Your task to perform on an android device: Turn off the flashlight Image 0: 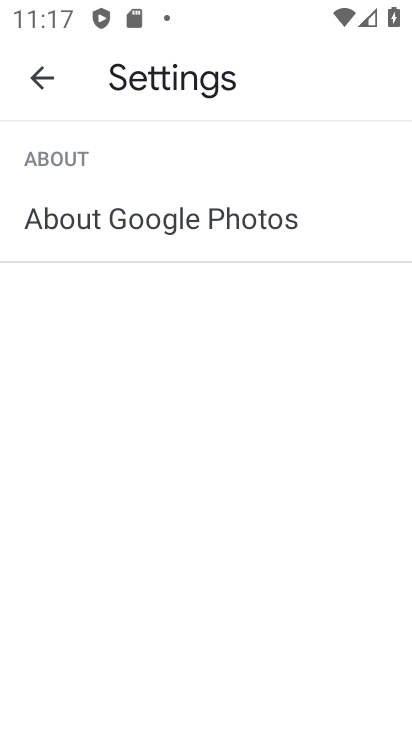
Step 0: press home button
Your task to perform on an android device: Turn off the flashlight Image 1: 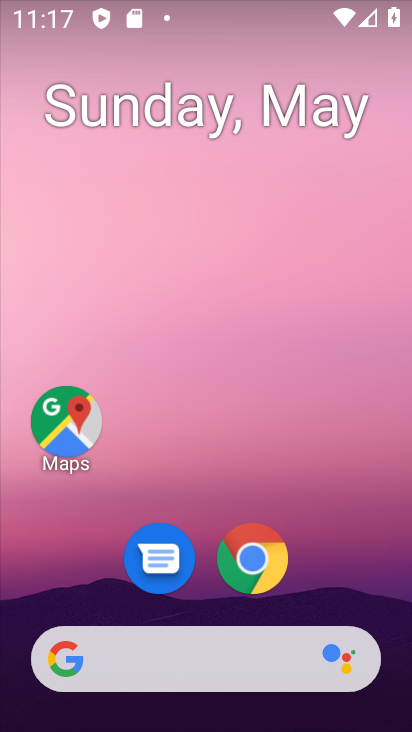
Step 1: drag from (280, 4) to (305, 477)
Your task to perform on an android device: Turn off the flashlight Image 2: 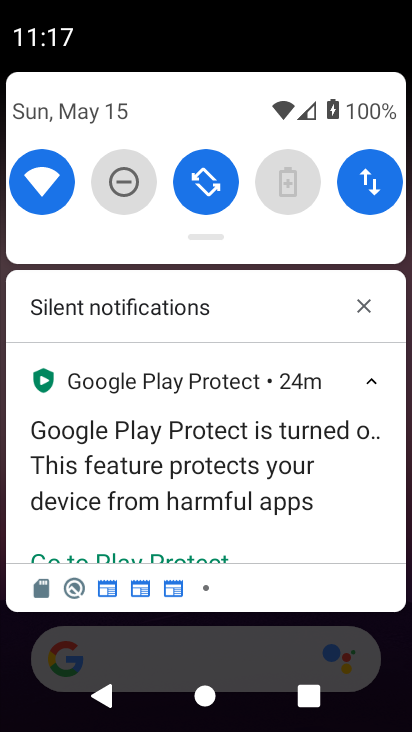
Step 2: drag from (240, 128) to (247, 392)
Your task to perform on an android device: Turn off the flashlight Image 3: 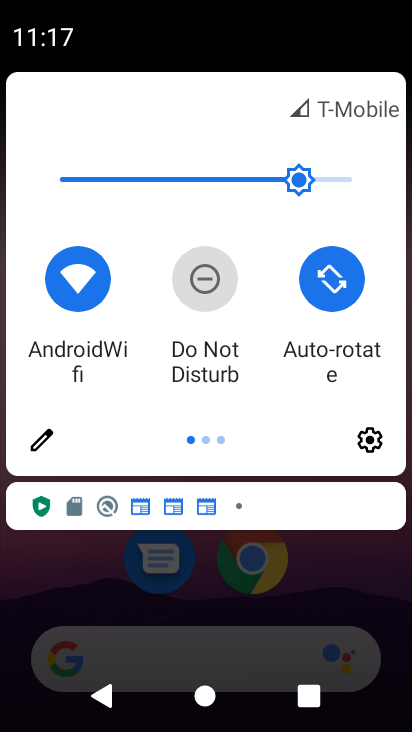
Step 3: click (54, 455)
Your task to perform on an android device: Turn off the flashlight Image 4: 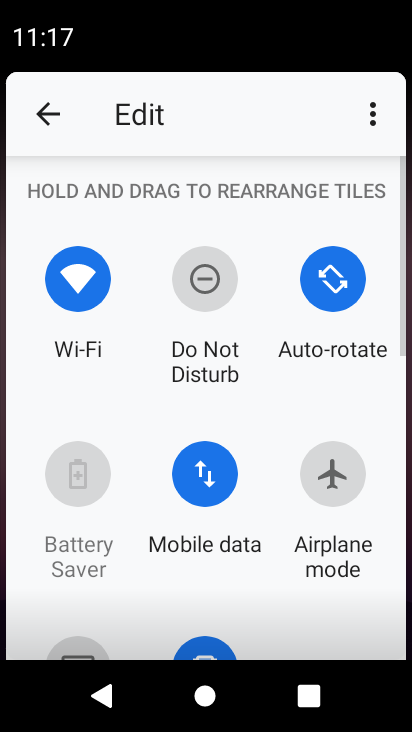
Step 4: task complete